Your task to perform on an android device: turn pop-ups on in chrome Image 0: 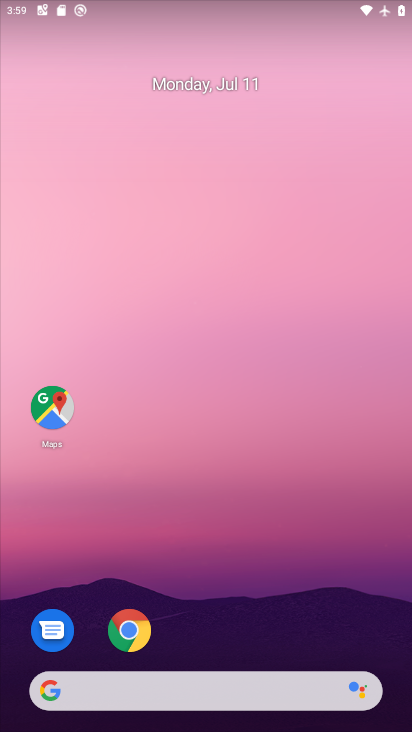
Step 0: click (156, 625)
Your task to perform on an android device: turn pop-ups on in chrome Image 1: 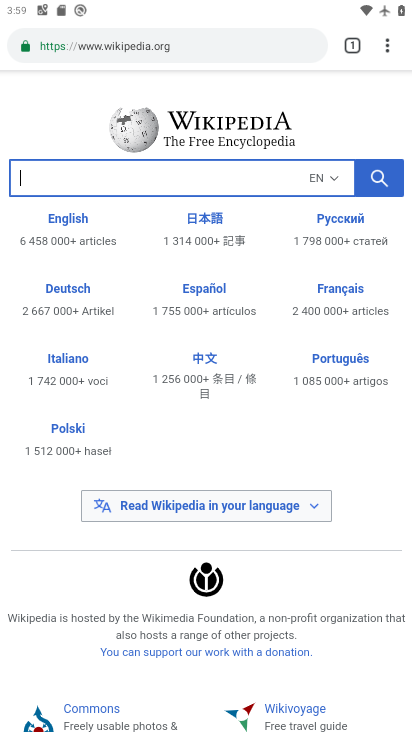
Step 1: press home button
Your task to perform on an android device: turn pop-ups on in chrome Image 2: 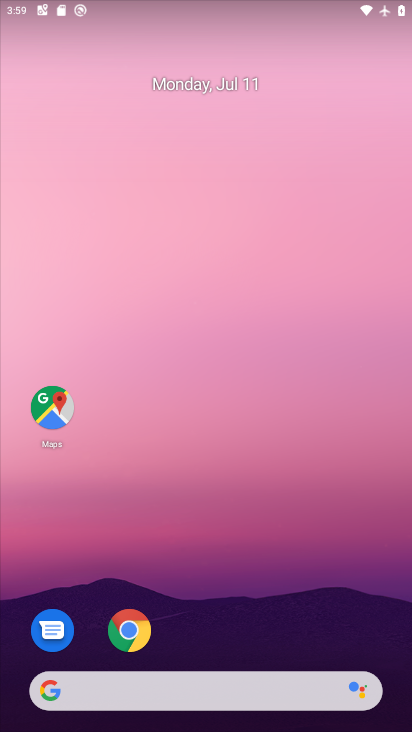
Step 2: click (121, 640)
Your task to perform on an android device: turn pop-ups on in chrome Image 3: 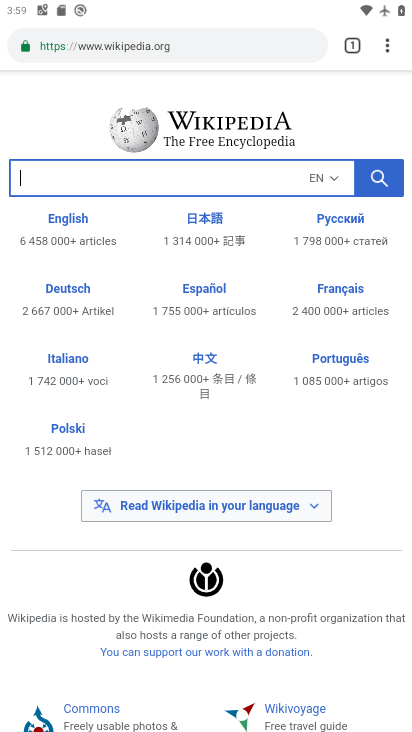
Step 3: click (399, 46)
Your task to perform on an android device: turn pop-ups on in chrome Image 4: 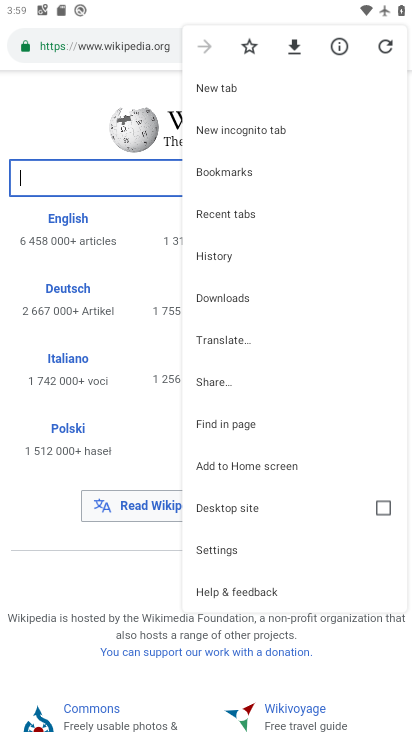
Step 4: click (255, 550)
Your task to perform on an android device: turn pop-ups on in chrome Image 5: 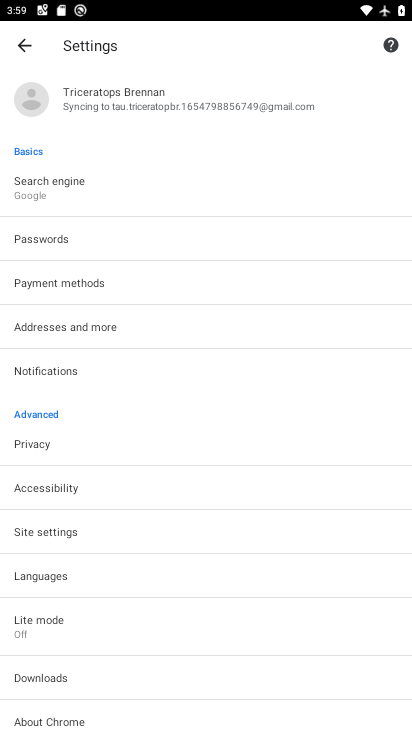
Step 5: drag from (165, 646) to (165, 516)
Your task to perform on an android device: turn pop-ups on in chrome Image 6: 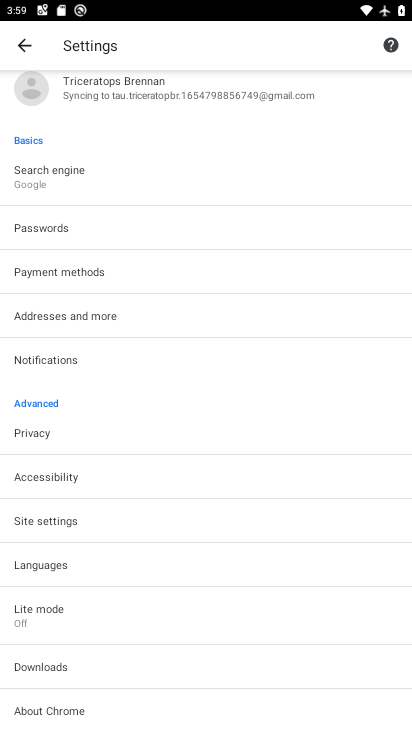
Step 6: click (125, 530)
Your task to perform on an android device: turn pop-ups on in chrome Image 7: 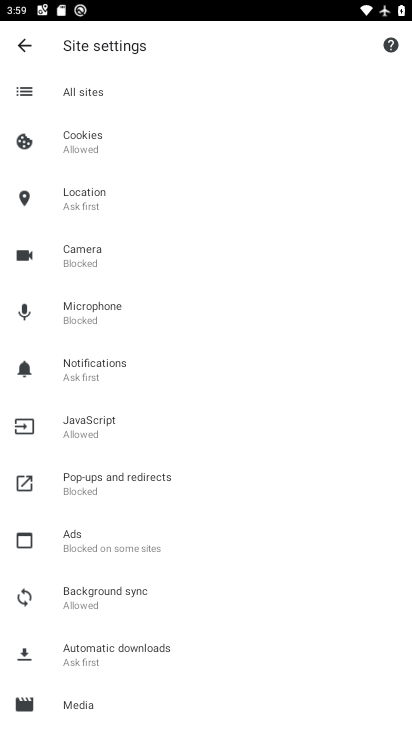
Step 7: click (88, 493)
Your task to perform on an android device: turn pop-ups on in chrome Image 8: 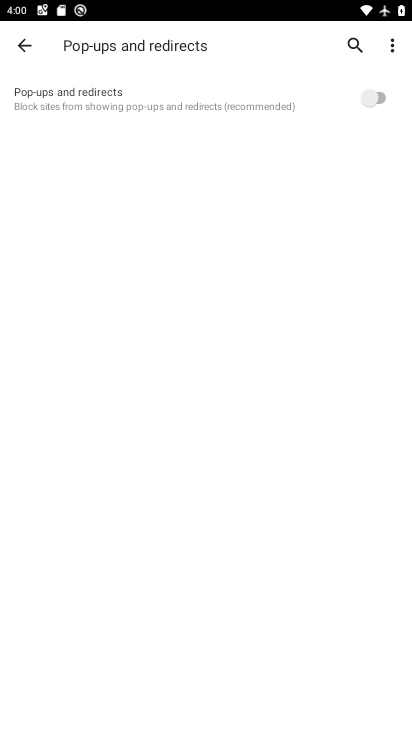
Step 8: click (376, 97)
Your task to perform on an android device: turn pop-ups on in chrome Image 9: 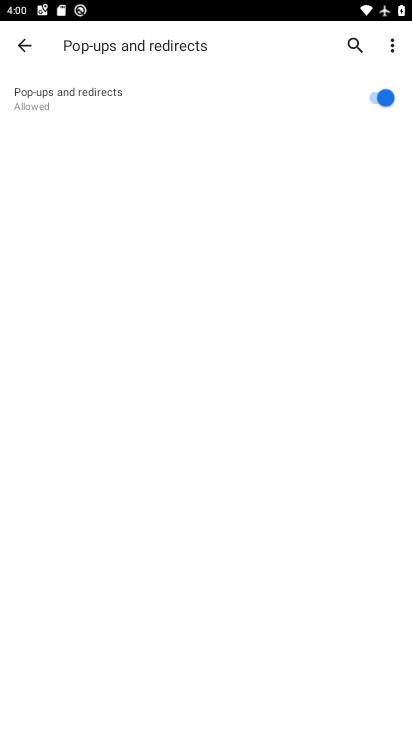
Step 9: task complete